Your task to perform on an android device: Go to privacy settings Image 0: 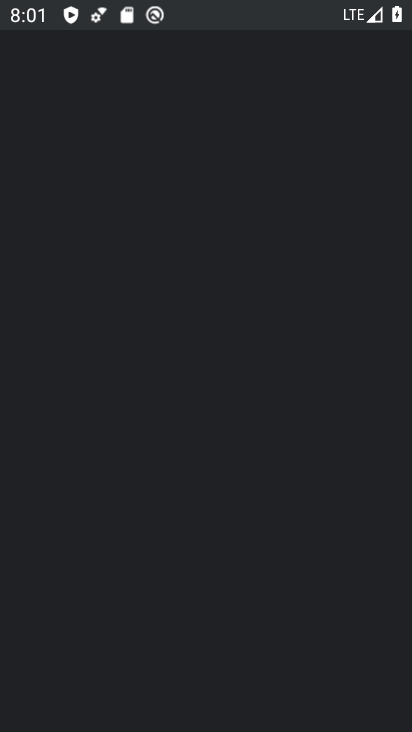
Step 0: click (251, 582)
Your task to perform on an android device: Go to privacy settings Image 1: 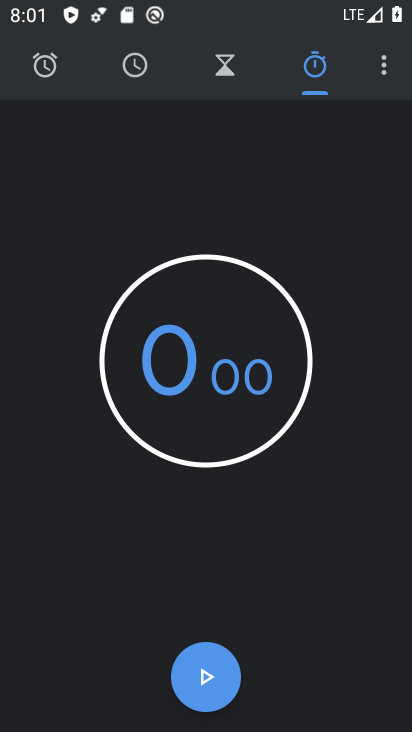
Step 1: press home button
Your task to perform on an android device: Go to privacy settings Image 2: 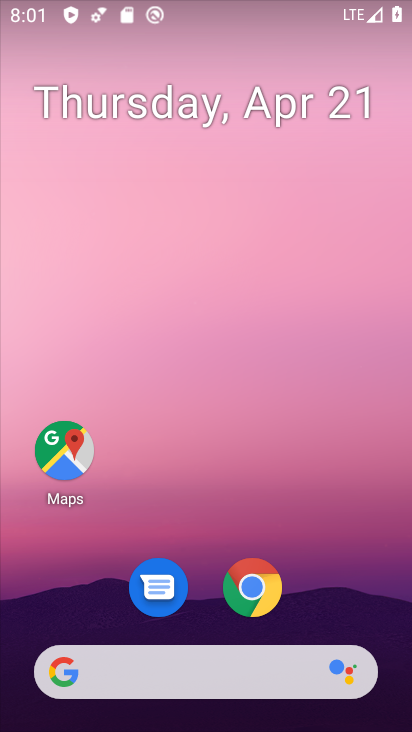
Step 2: click (257, 585)
Your task to perform on an android device: Go to privacy settings Image 3: 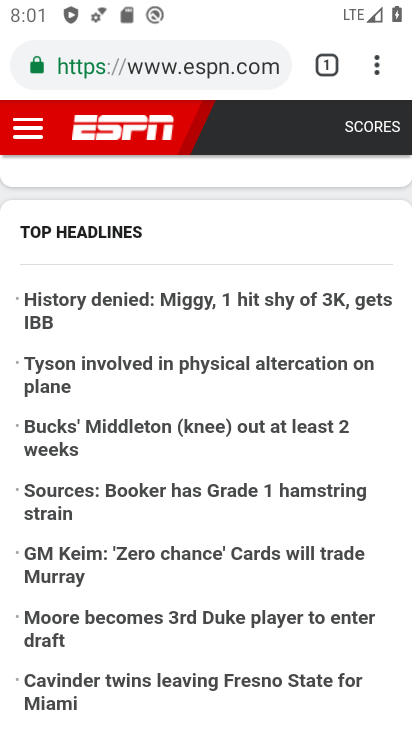
Step 3: click (369, 62)
Your task to perform on an android device: Go to privacy settings Image 4: 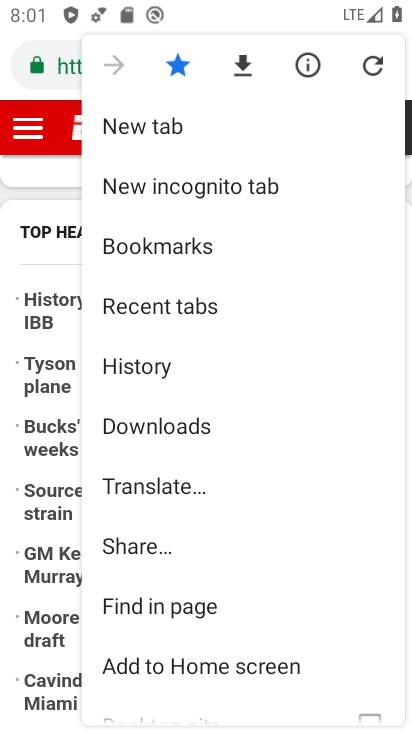
Step 4: drag from (341, 422) to (356, 244)
Your task to perform on an android device: Go to privacy settings Image 5: 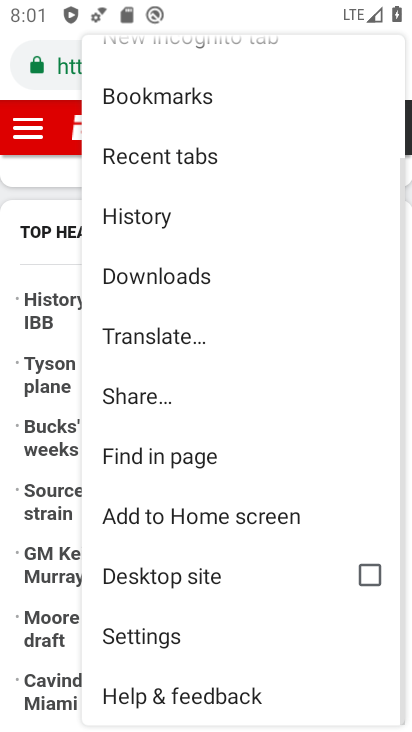
Step 5: click (153, 638)
Your task to perform on an android device: Go to privacy settings Image 6: 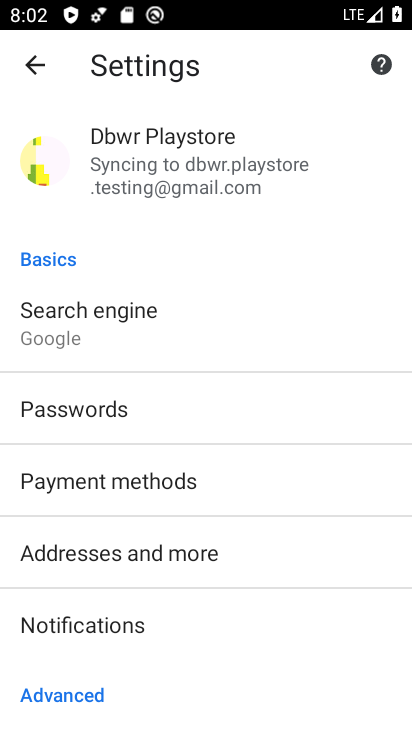
Step 6: drag from (222, 654) to (214, 328)
Your task to perform on an android device: Go to privacy settings Image 7: 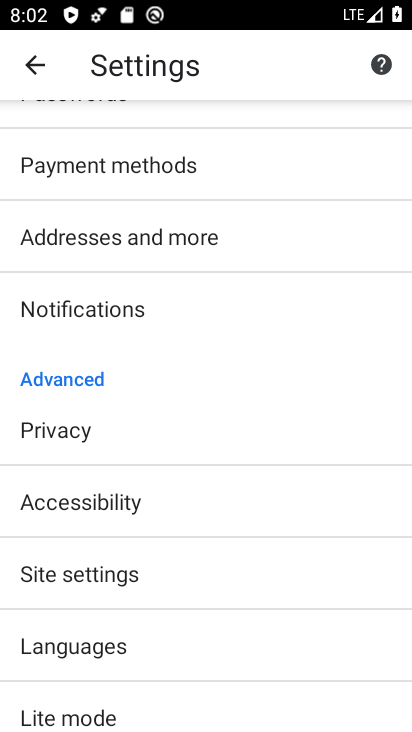
Step 7: click (28, 425)
Your task to perform on an android device: Go to privacy settings Image 8: 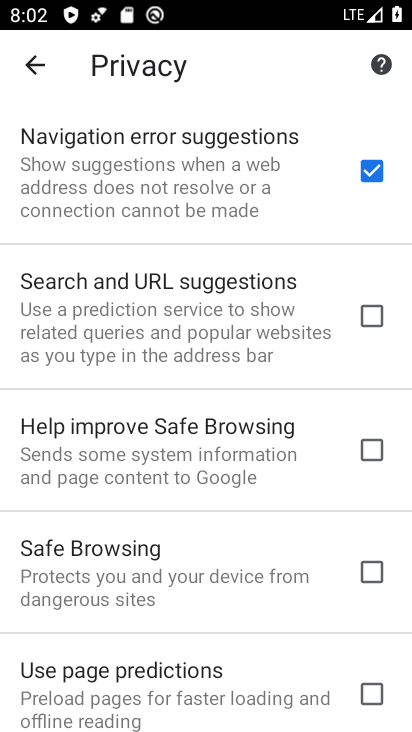
Step 8: task complete